Your task to perform on an android device: turn pop-ups on in chrome Image 0: 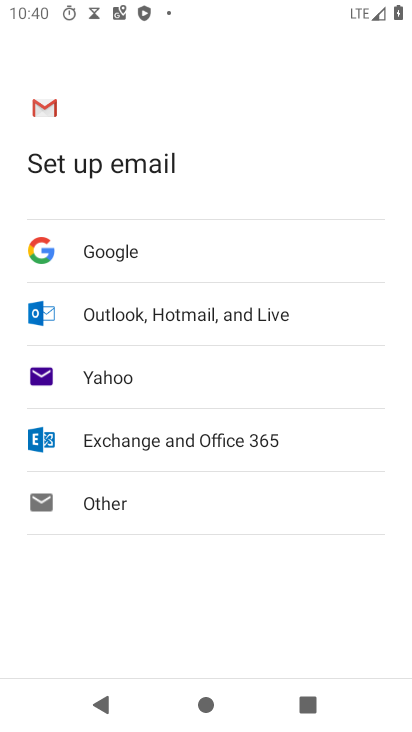
Step 0: press home button
Your task to perform on an android device: turn pop-ups on in chrome Image 1: 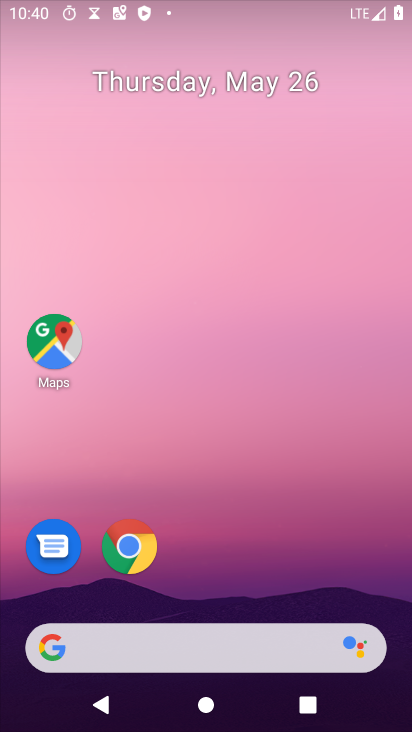
Step 1: drag from (328, 548) to (241, 160)
Your task to perform on an android device: turn pop-ups on in chrome Image 2: 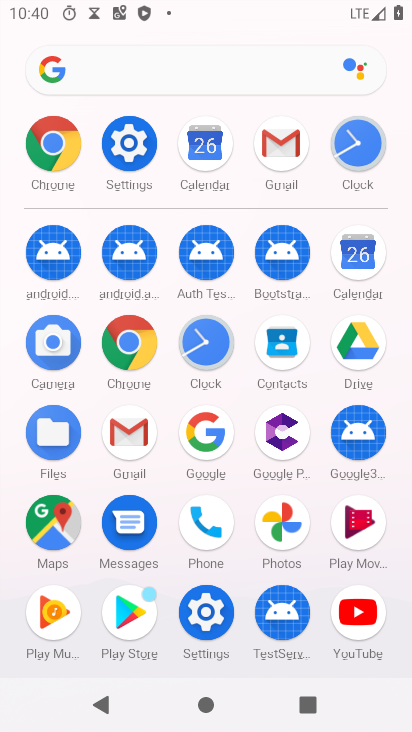
Step 2: click (126, 162)
Your task to perform on an android device: turn pop-ups on in chrome Image 3: 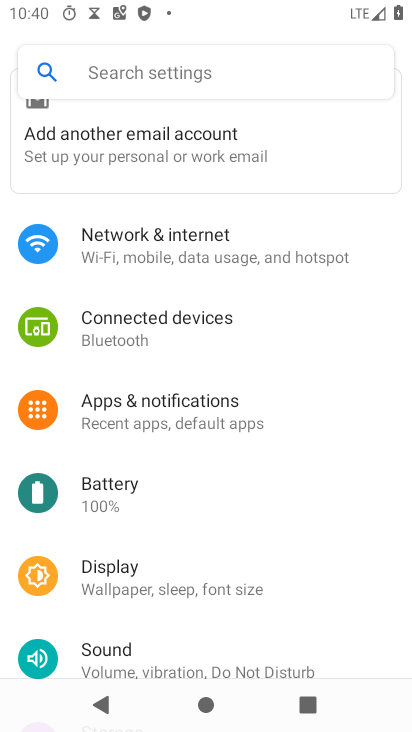
Step 3: drag from (254, 267) to (234, 558)
Your task to perform on an android device: turn pop-ups on in chrome Image 4: 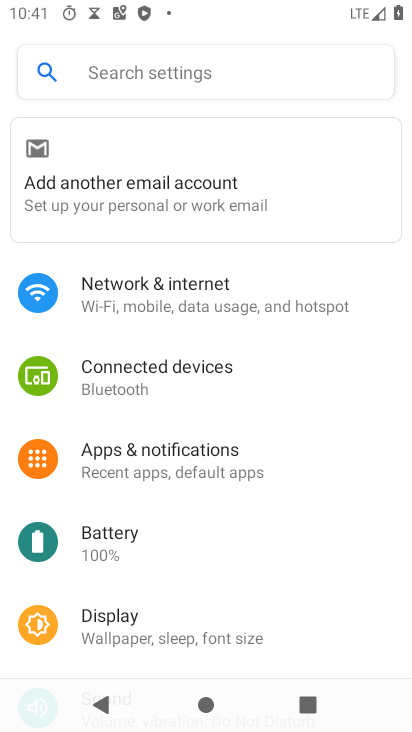
Step 4: press home button
Your task to perform on an android device: turn pop-ups on in chrome Image 5: 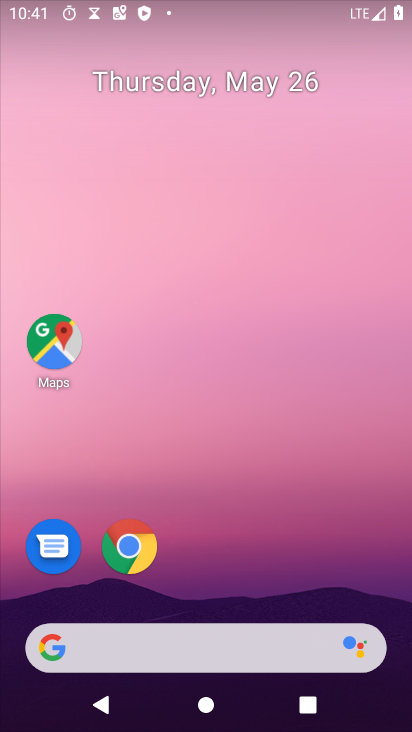
Step 5: drag from (348, 569) to (353, 91)
Your task to perform on an android device: turn pop-ups on in chrome Image 6: 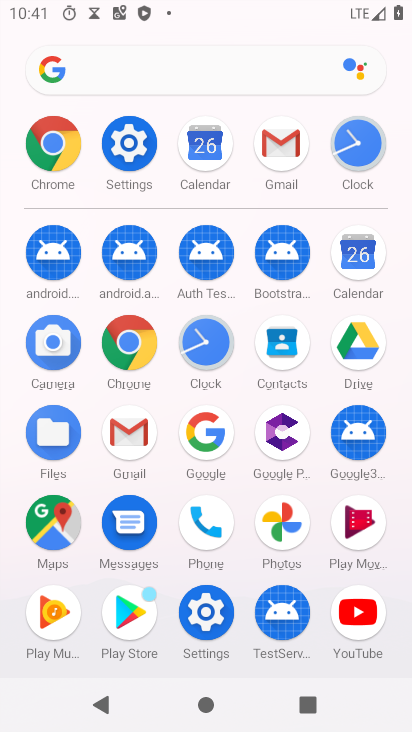
Step 6: click (126, 356)
Your task to perform on an android device: turn pop-ups on in chrome Image 7: 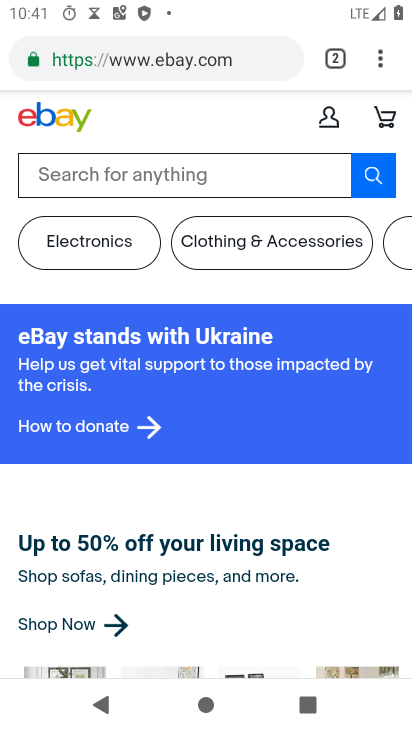
Step 7: drag from (384, 61) to (236, 577)
Your task to perform on an android device: turn pop-ups on in chrome Image 8: 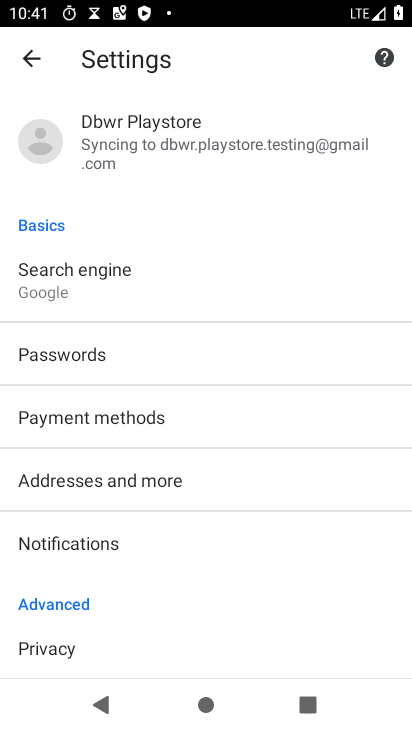
Step 8: drag from (206, 585) to (236, 278)
Your task to perform on an android device: turn pop-ups on in chrome Image 9: 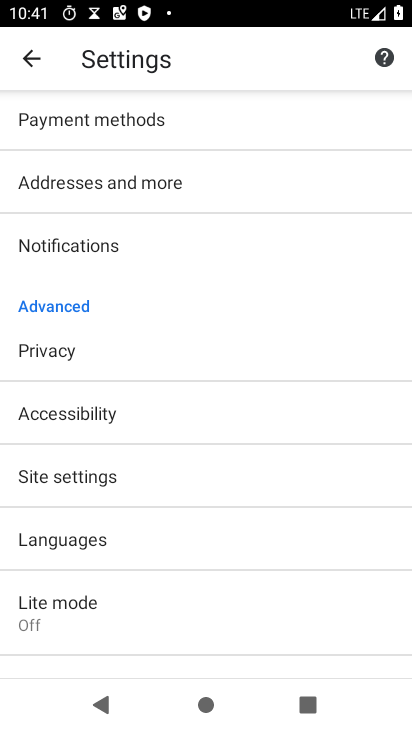
Step 9: click (119, 473)
Your task to perform on an android device: turn pop-ups on in chrome Image 10: 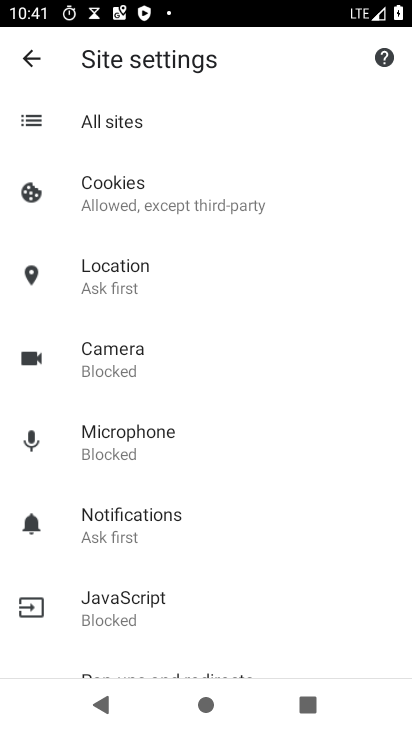
Step 10: drag from (228, 529) to (269, 280)
Your task to perform on an android device: turn pop-ups on in chrome Image 11: 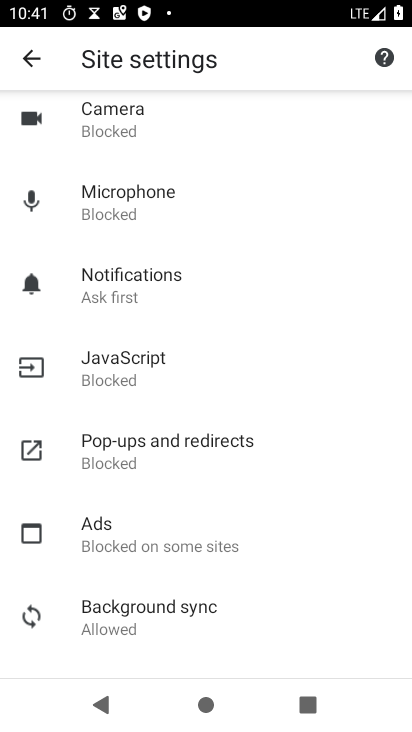
Step 11: click (216, 442)
Your task to perform on an android device: turn pop-ups on in chrome Image 12: 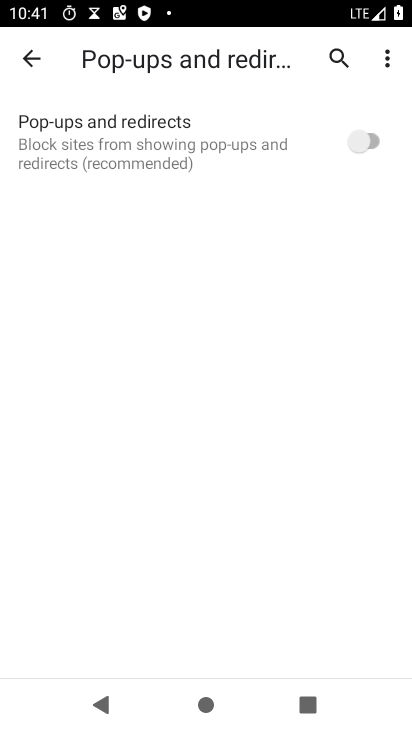
Step 12: click (373, 141)
Your task to perform on an android device: turn pop-ups on in chrome Image 13: 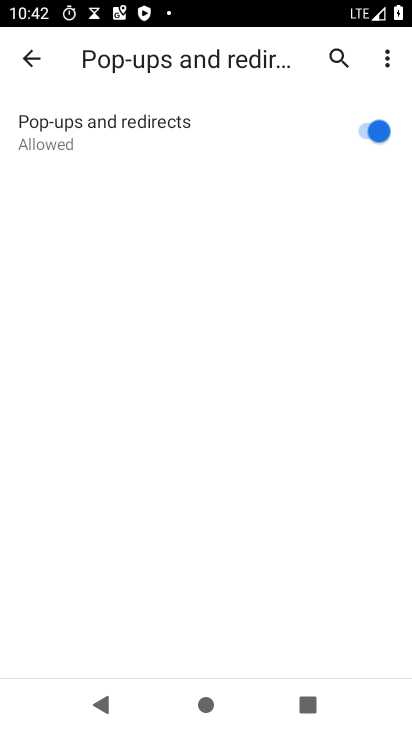
Step 13: task complete